Your task to perform on an android device: change the clock display to show seconds Image 0: 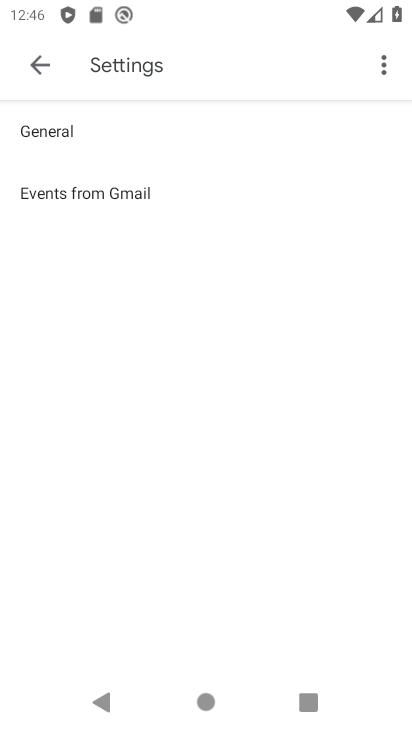
Step 0: press home button
Your task to perform on an android device: change the clock display to show seconds Image 1: 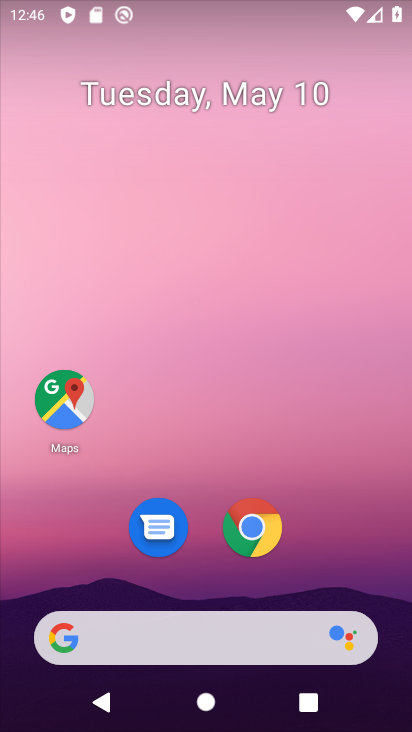
Step 1: drag from (323, 530) to (333, 253)
Your task to perform on an android device: change the clock display to show seconds Image 2: 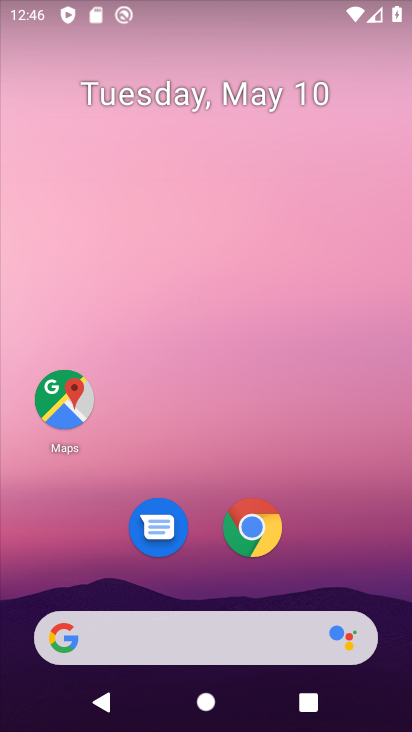
Step 2: drag from (331, 577) to (292, 265)
Your task to perform on an android device: change the clock display to show seconds Image 3: 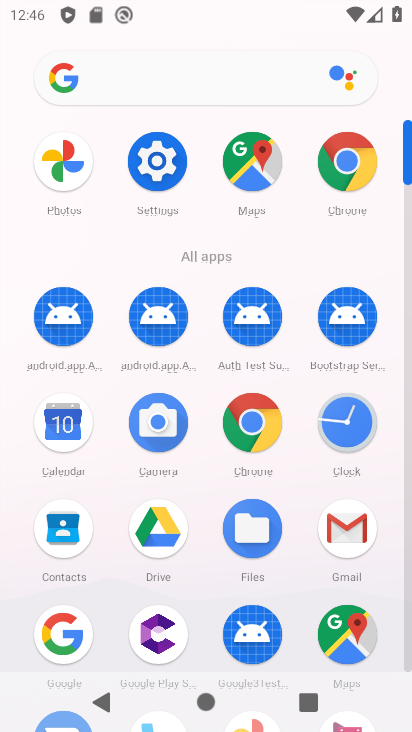
Step 3: click (346, 428)
Your task to perform on an android device: change the clock display to show seconds Image 4: 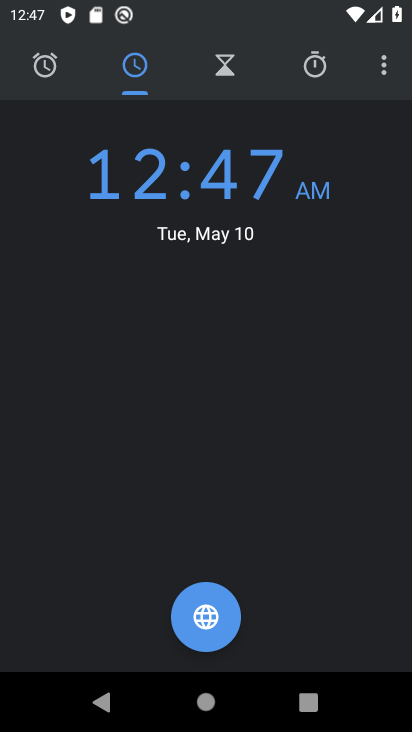
Step 4: click (378, 65)
Your task to perform on an android device: change the clock display to show seconds Image 5: 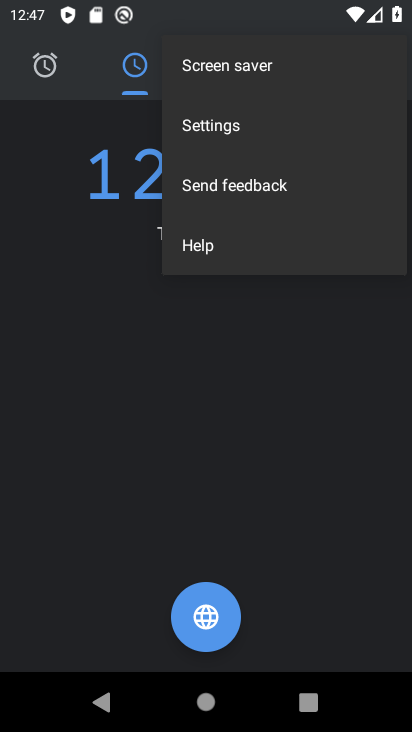
Step 5: click (266, 130)
Your task to perform on an android device: change the clock display to show seconds Image 6: 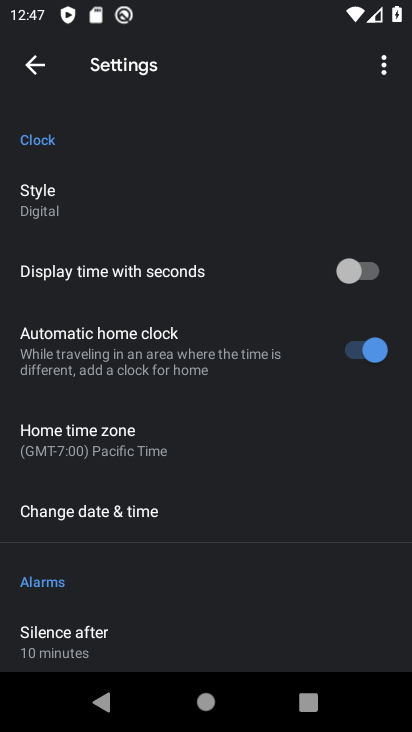
Step 6: click (365, 269)
Your task to perform on an android device: change the clock display to show seconds Image 7: 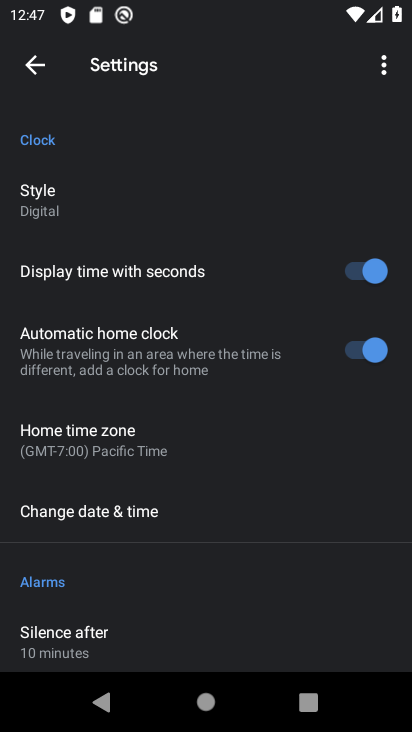
Step 7: task complete